Your task to perform on an android device: Go to Wikipedia Image 0: 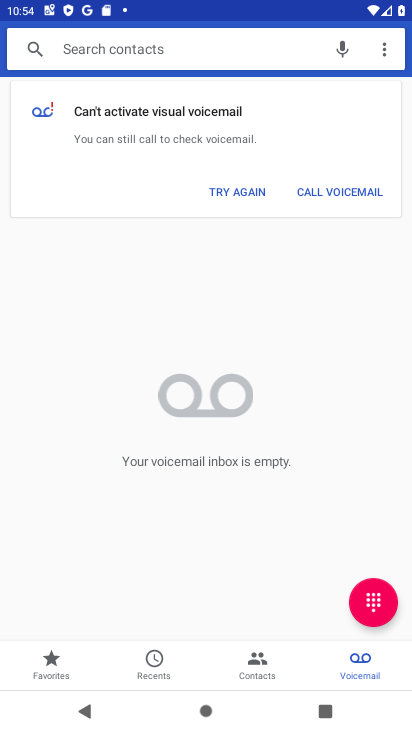
Step 0: press home button
Your task to perform on an android device: Go to Wikipedia Image 1: 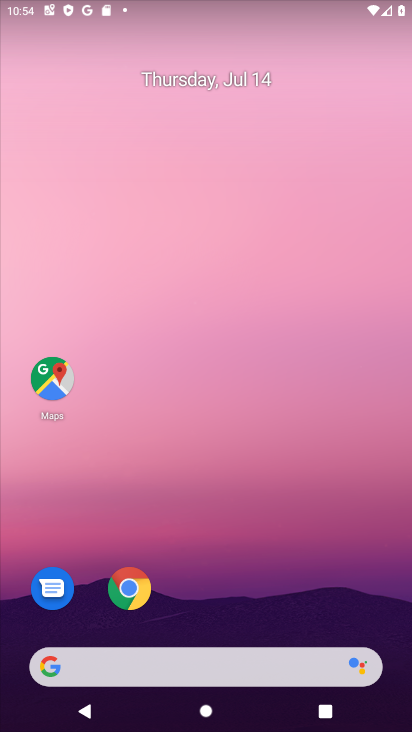
Step 1: click (141, 590)
Your task to perform on an android device: Go to Wikipedia Image 2: 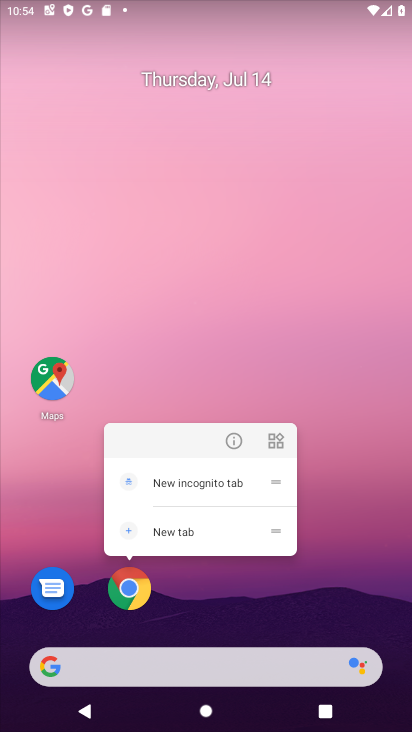
Step 2: click (125, 574)
Your task to perform on an android device: Go to Wikipedia Image 3: 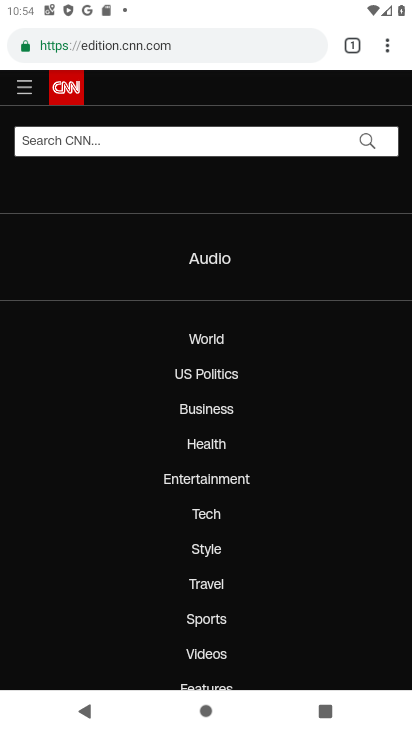
Step 3: drag from (389, 46) to (318, 94)
Your task to perform on an android device: Go to Wikipedia Image 4: 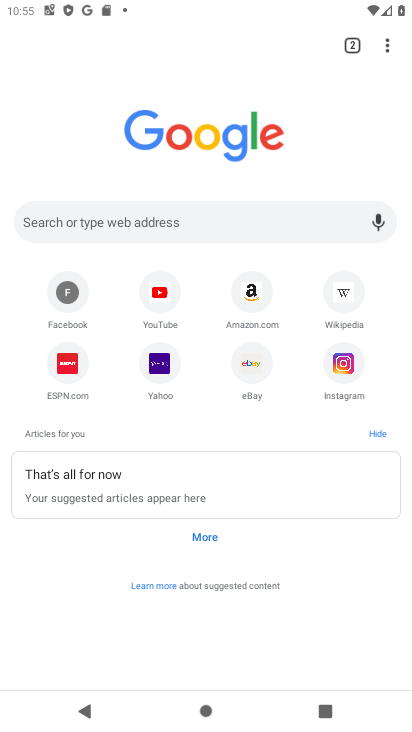
Step 4: click (360, 289)
Your task to perform on an android device: Go to Wikipedia Image 5: 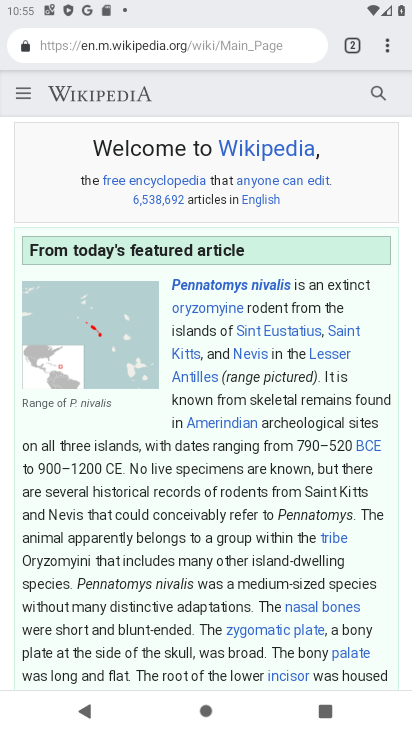
Step 5: task complete